Your task to perform on an android device: Go to sound settings Image 0: 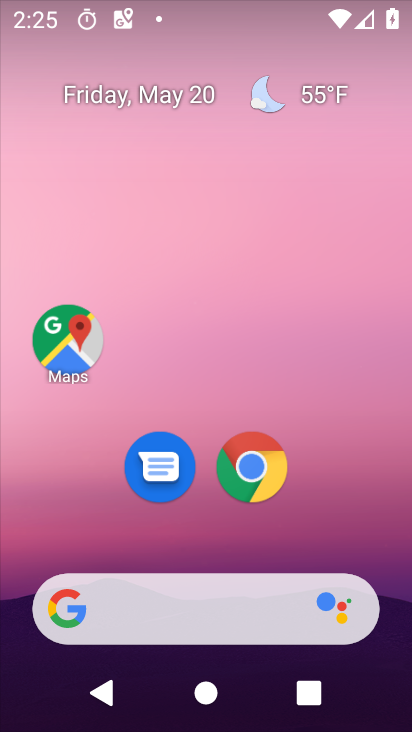
Step 0: drag from (342, 512) to (354, 0)
Your task to perform on an android device: Go to sound settings Image 1: 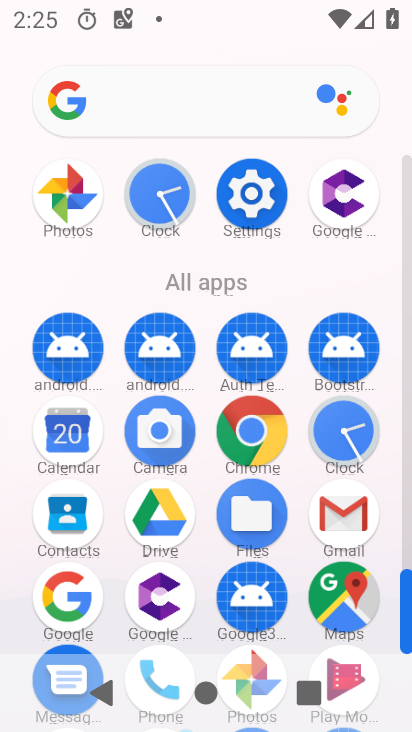
Step 1: click (261, 191)
Your task to perform on an android device: Go to sound settings Image 2: 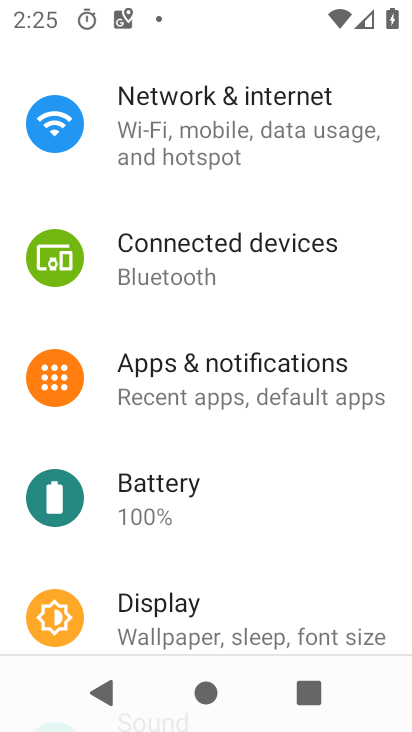
Step 2: drag from (199, 550) to (222, 333)
Your task to perform on an android device: Go to sound settings Image 3: 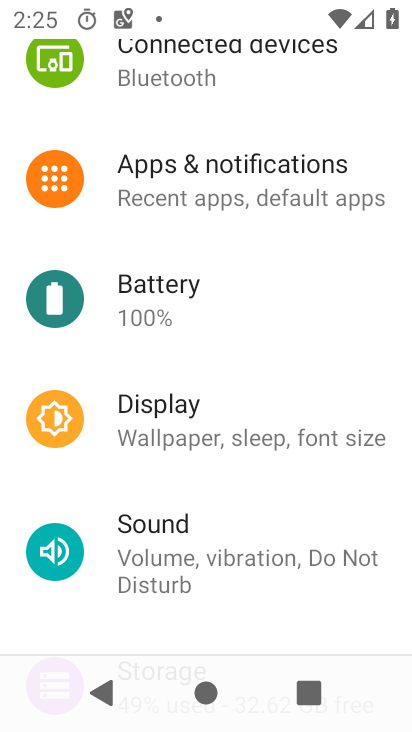
Step 3: click (209, 554)
Your task to perform on an android device: Go to sound settings Image 4: 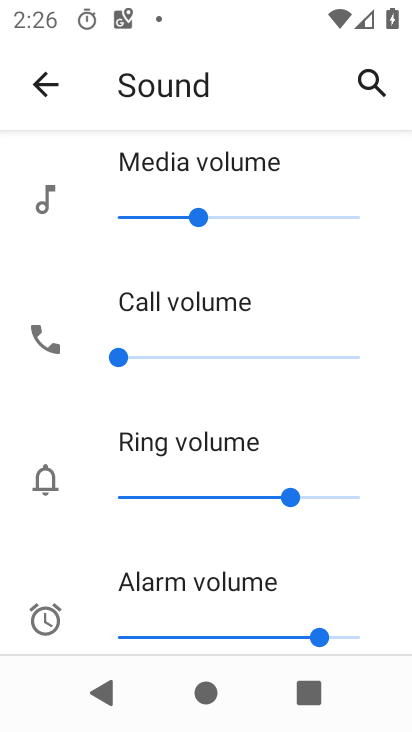
Step 4: task complete